Your task to perform on an android device: Find coffee shops on Maps Image 0: 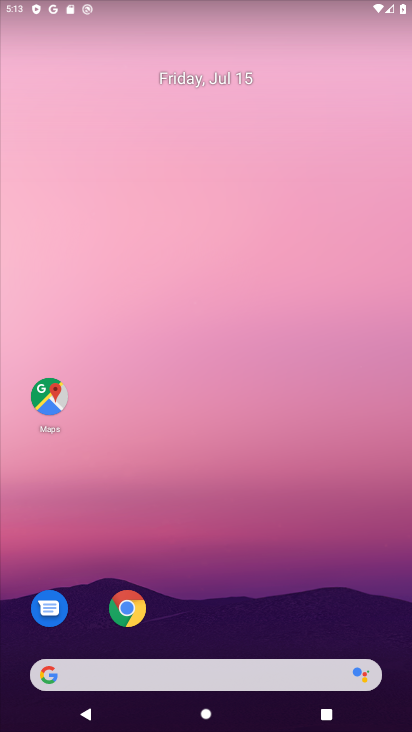
Step 0: drag from (273, 572) to (297, 149)
Your task to perform on an android device: Find coffee shops on Maps Image 1: 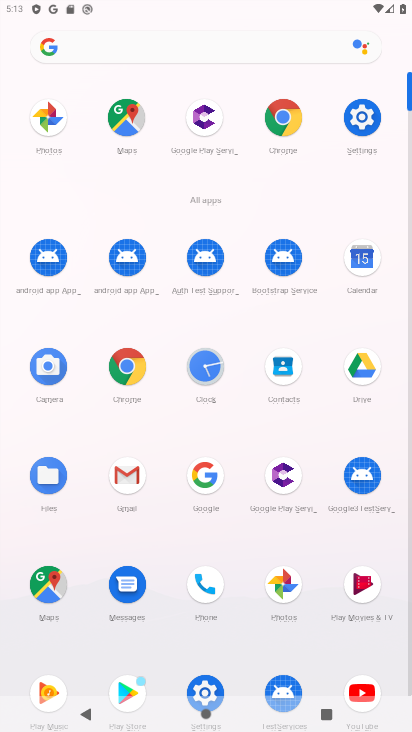
Step 1: click (48, 574)
Your task to perform on an android device: Find coffee shops on Maps Image 2: 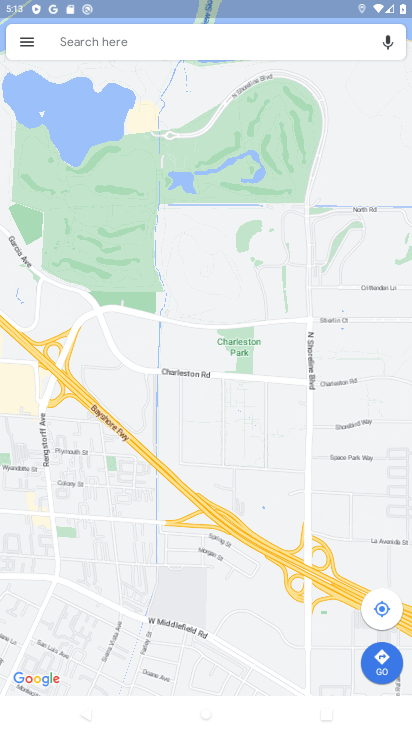
Step 2: click (222, 42)
Your task to perform on an android device: Find coffee shops on Maps Image 3: 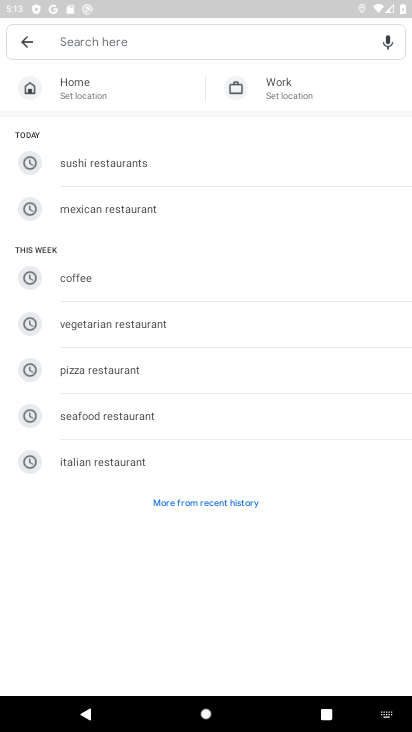
Step 3: click (96, 271)
Your task to perform on an android device: Find coffee shops on Maps Image 4: 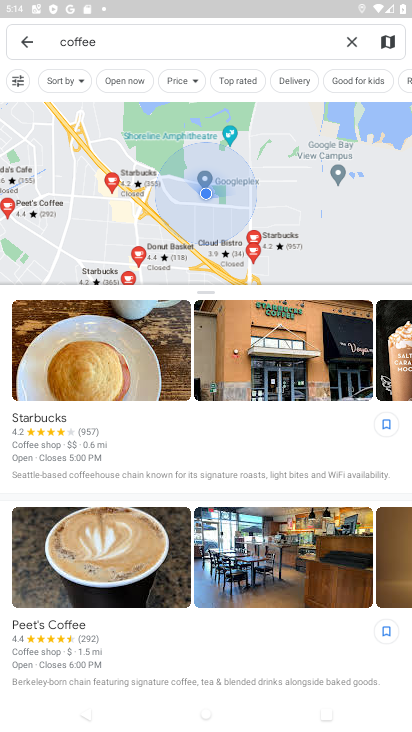
Step 4: task complete